Your task to perform on an android device: find which apps use the phone's location Image 0: 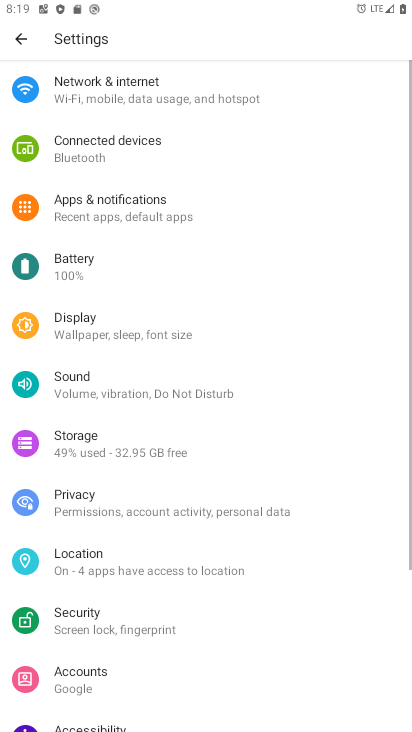
Step 0: press home button
Your task to perform on an android device: find which apps use the phone's location Image 1: 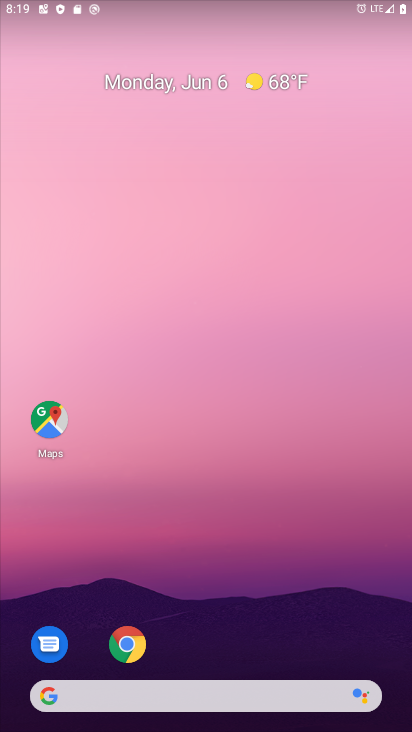
Step 1: drag from (204, 699) to (287, 139)
Your task to perform on an android device: find which apps use the phone's location Image 2: 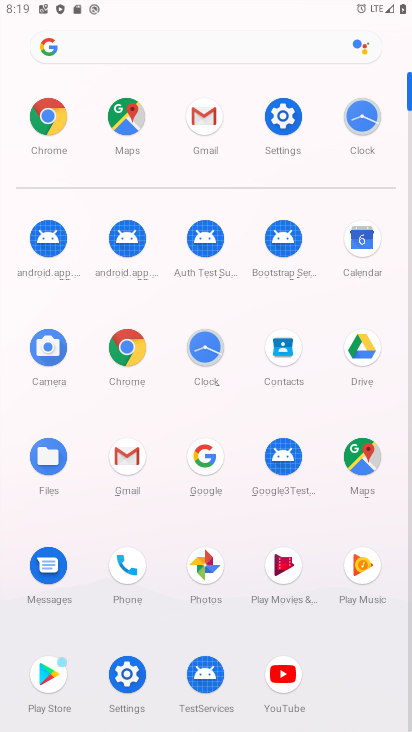
Step 2: click (299, 108)
Your task to perform on an android device: find which apps use the phone's location Image 3: 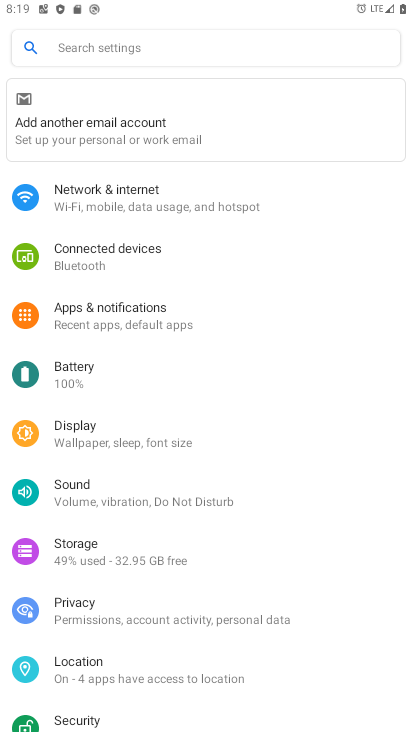
Step 3: click (115, 663)
Your task to perform on an android device: find which apps use the phone's location Image 4: 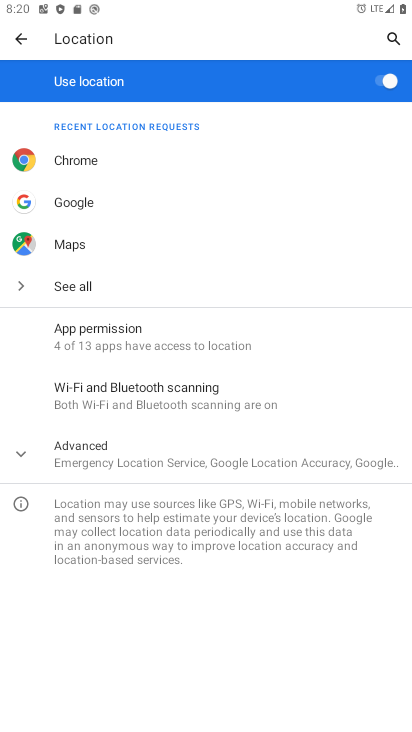
Step 4: task complete